Your task to perform on an android device: turn on bluetooth scan Image 0: 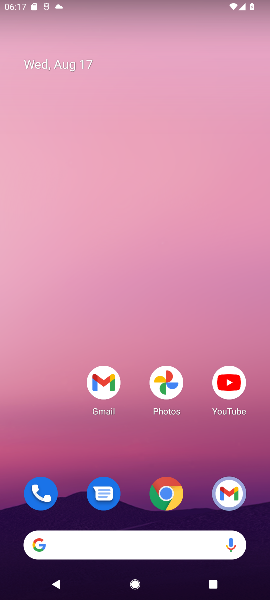
Step 0: press home button
Your task to perform on an android device: turn on bluetooth scan Image 1: 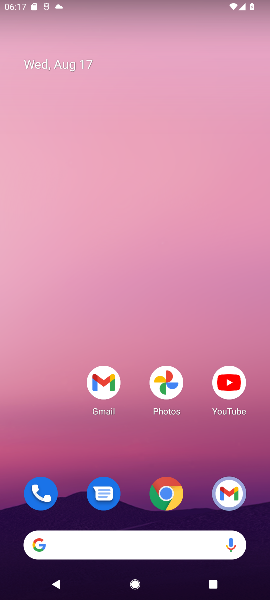
Step 1: drag from (136, 515) to (148, 125)
Your task to perform on an android device: turn on bluetooth scan Image 2: 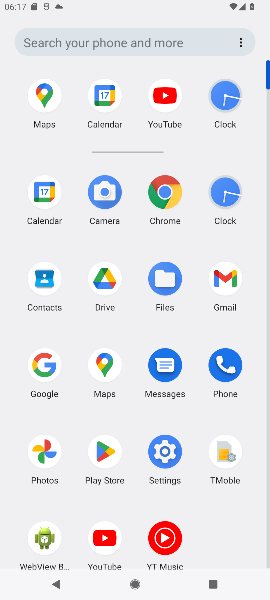
Step 2: click (163, 461)
Your task to perform on an android device: turn on bluetooth scan Image 3: 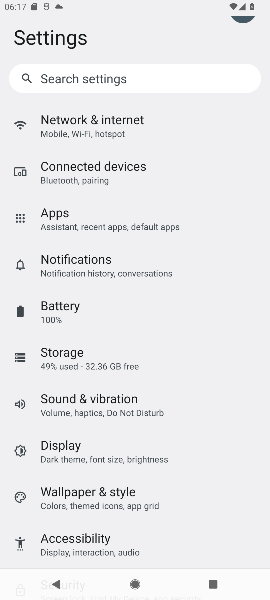
Step 3: drag from (227, 497) to (196, 214)
Your task to perform on an android device: turn on bluetooth scan Image 4: 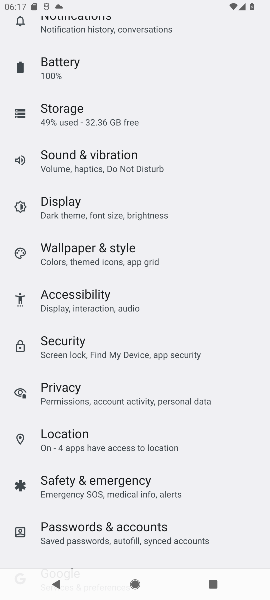
Step 4: click (54, 434)
Your task to perform on an android device: turn on bluetooth scan Image 5: 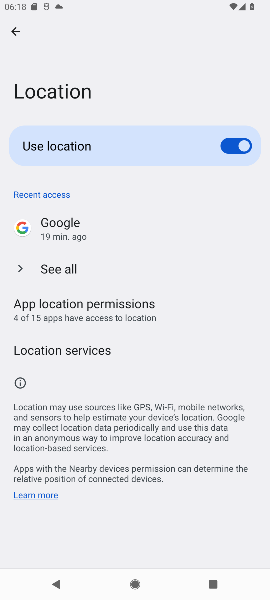
Step 5: click (87, 357)
Your task to perform on an android device: turn on bluetooth scan Image 6: 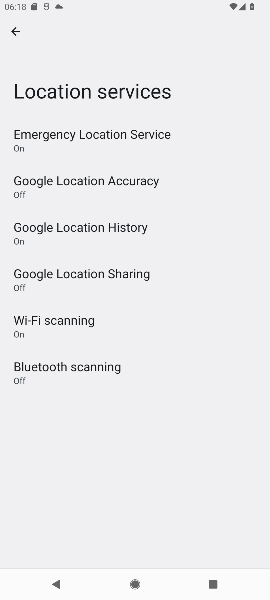
Step 6: click (84, 372)
Your task to perform on an android device: turn on bluetooth scan Image 7: 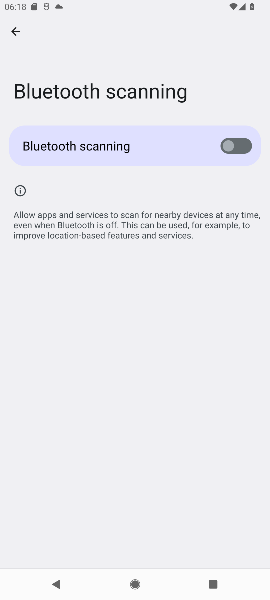
Step 7: click (227, 153)
Your task to perform on an android device: turn on bluetooth scan Image 8: 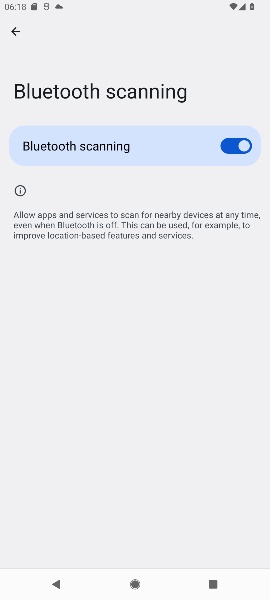
Step 8: task complete